Your task to perform on an android device: add a contact Image 0: 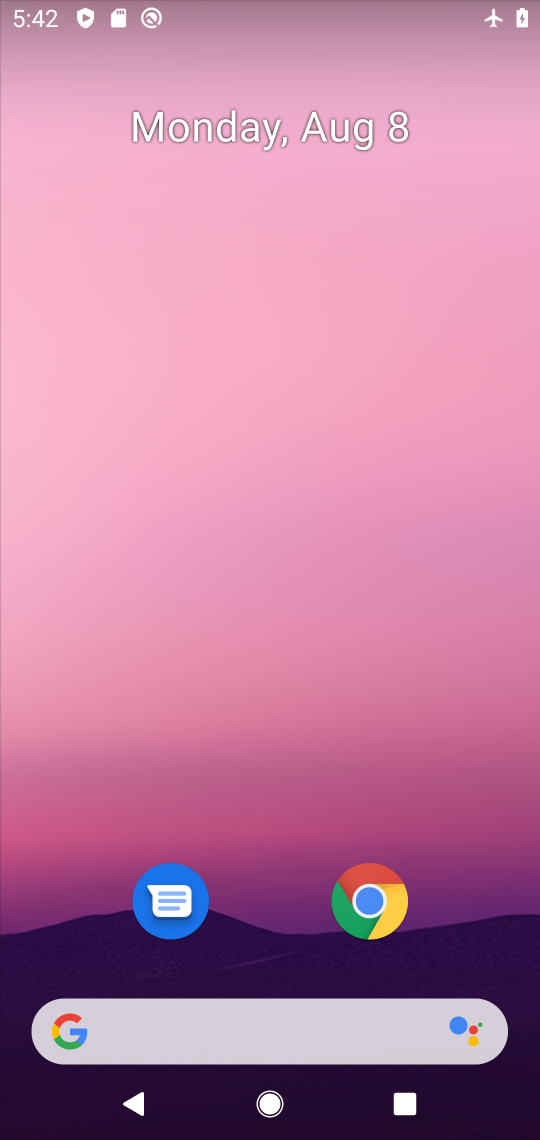
Step 0: drag from (494, 939) to (311, 137)
Your task to perform on an android device: add a contact Image 1: 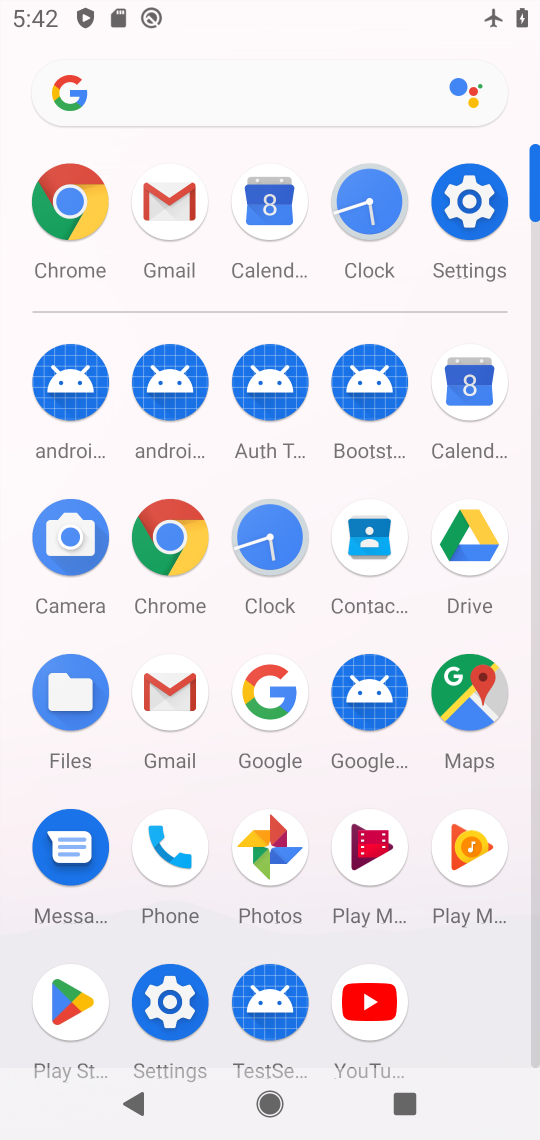
Step 1: click (373, 533)
Your task to perform on an android device: add a contact Image 2: 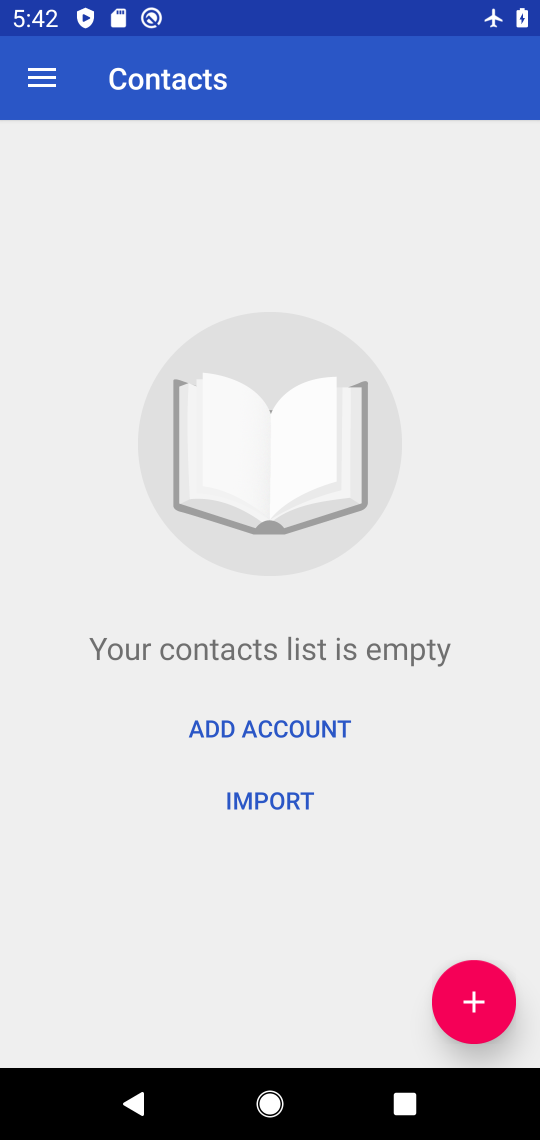
Step 2: click (481, 956)
Your task to perform on an android device: add a contact Image 3: 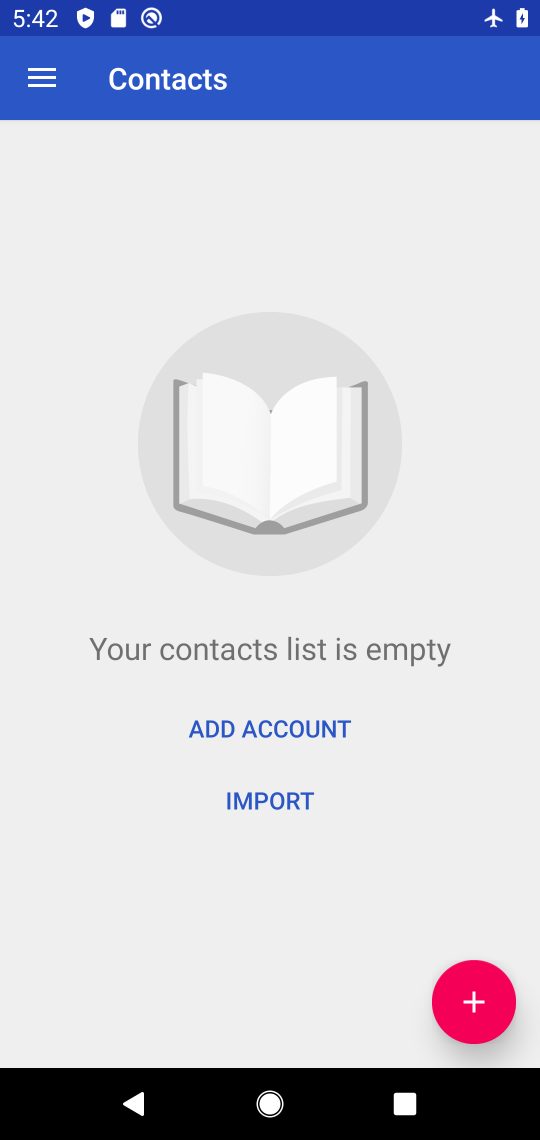
Step 3: click (481, 975)
Your task to perform on an android device: add a contact Image 4: 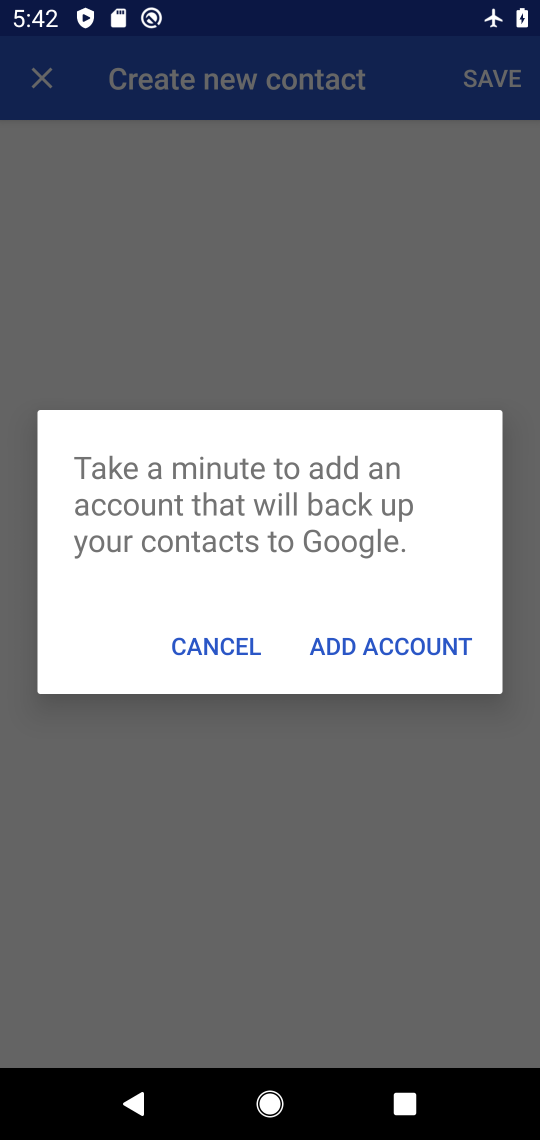
Step 4: task complete